Your task to perform on an android device: find photos in the google photos app Image 0: 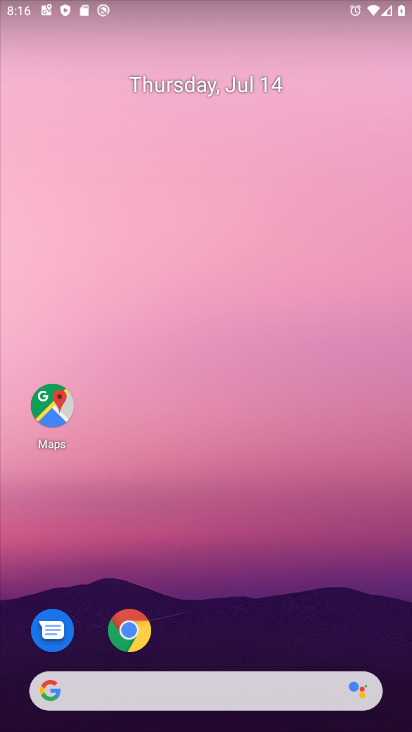
Step 0: drag from (223, 726) to (227, 187)
Your task to perform on an android device: find photos in the google photos app Image 1: 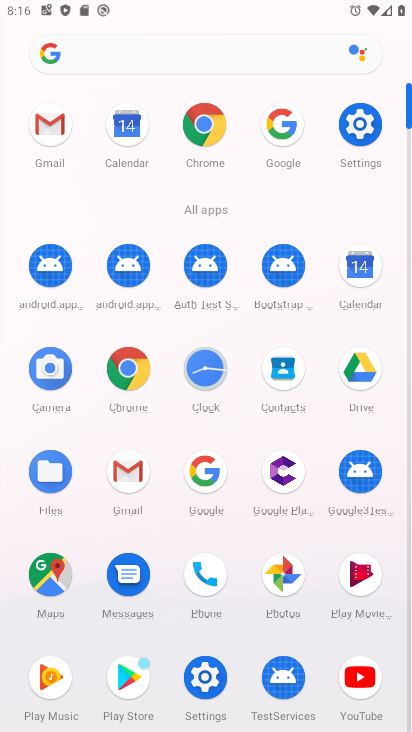
Step 1: click (283, 574)
Your task to perform on an android device: find photos in the google photos app Image 2: 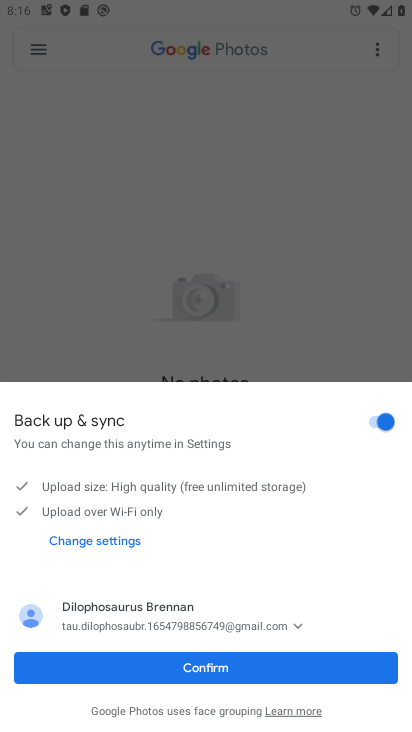
Step 2: click (242, 670)
Your task to perform on an android device: find photos in the google photos app Image 3: 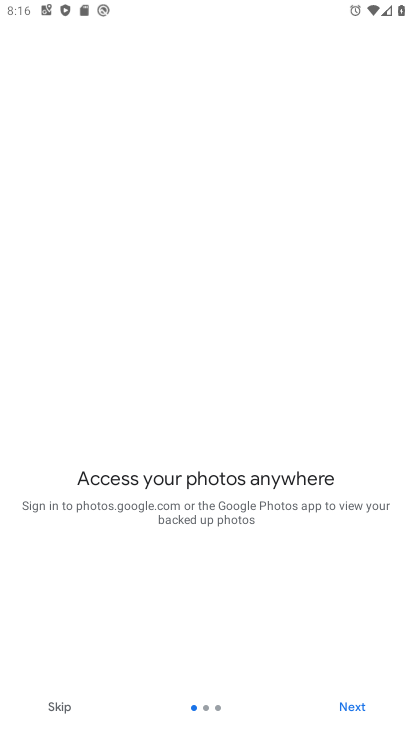
Step 3: click (355, 709)
Your task to perform on an android device: find photos in the google photos app Image 4: 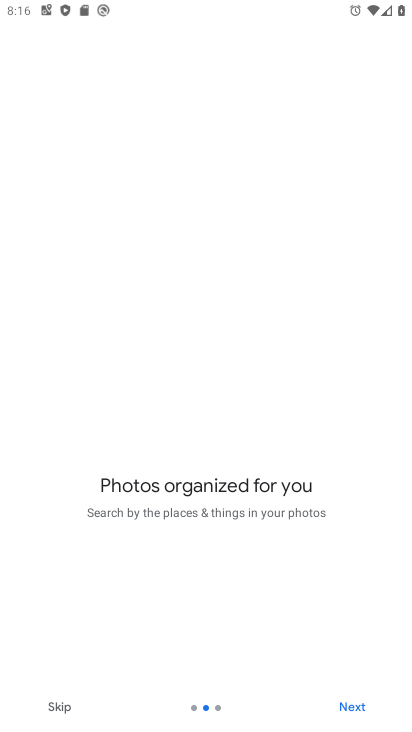
Step 4: click (358, 705)
Your task to perform on an android device: find photos in the google photos app Image 5: 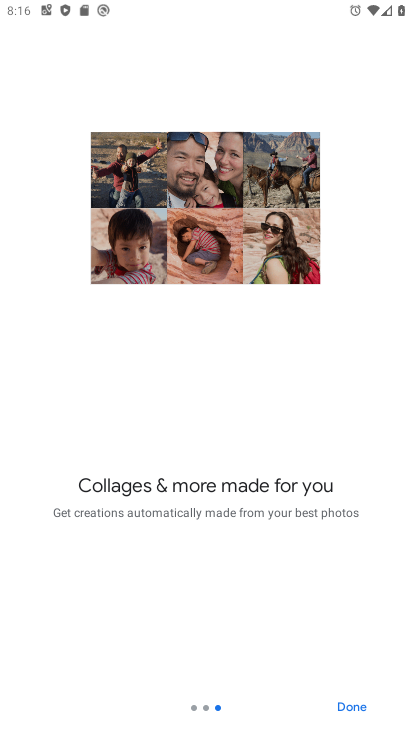
Step 5: click (353, 705)
Your task to perform on an android device: find photos in the google photos app Image 6: 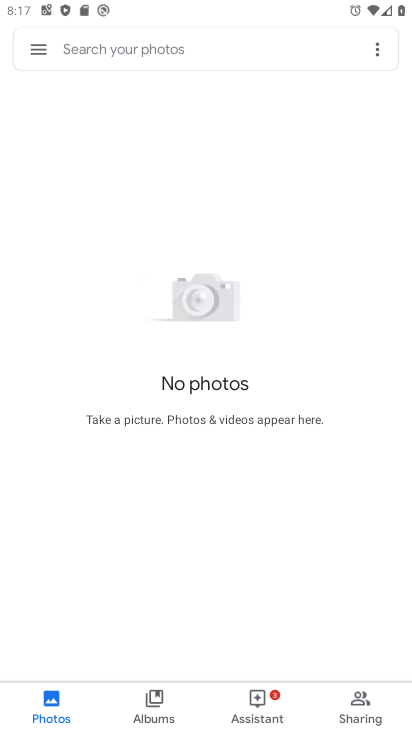
Step 6: task complete